Your task to perform on an android device: Go to settings Image 0: 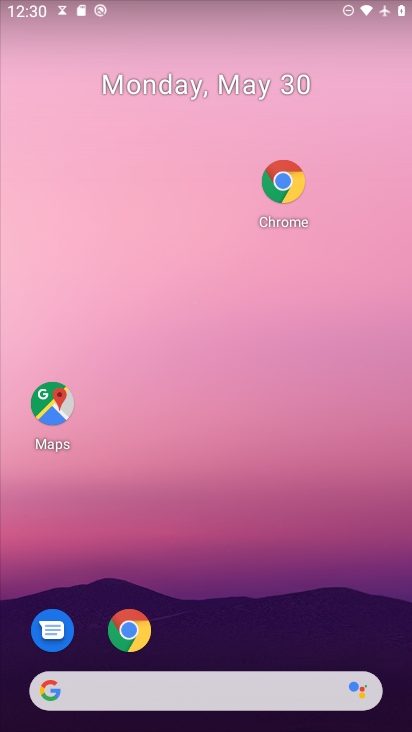
Step 0: drag from (268, 693) to (114, 217)
Your task to perform on an android device: Go to settings Image 1: 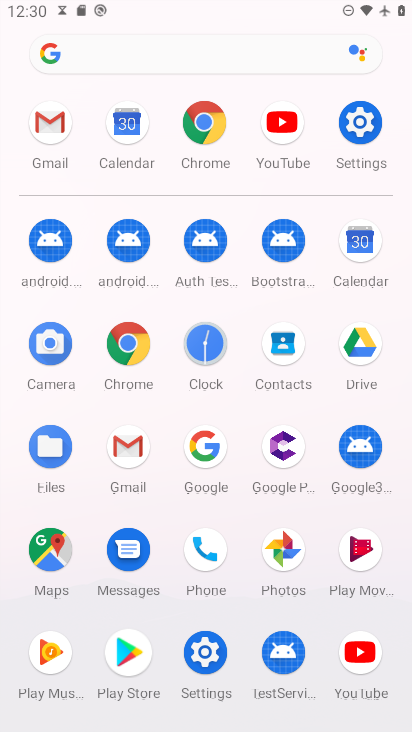
Step 1: click (356, 118)
Your task to perform on an android device: Go to settings Image 2: 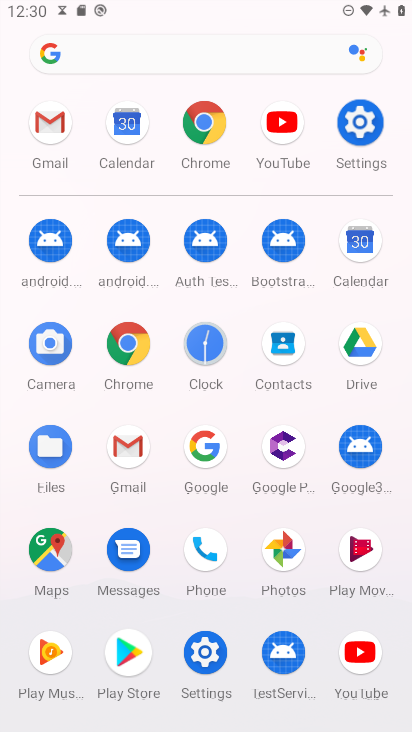
Step 2: click (356, 118)
Your task to perform on an android device: Go to settings Image 3: 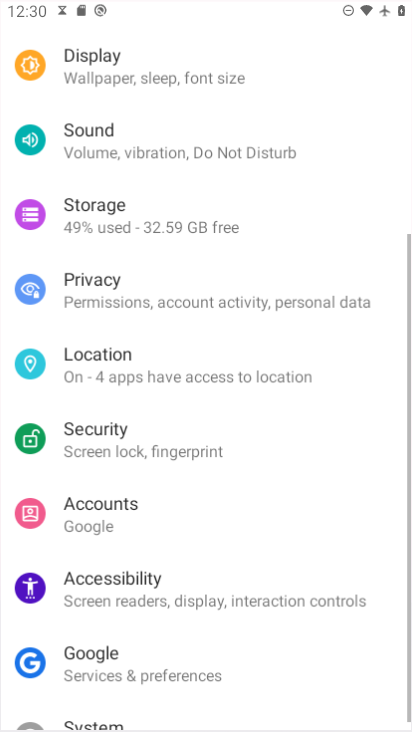
Step 3: click (357, 119)
Your task to perform on an android device: Go to settings Image 4: 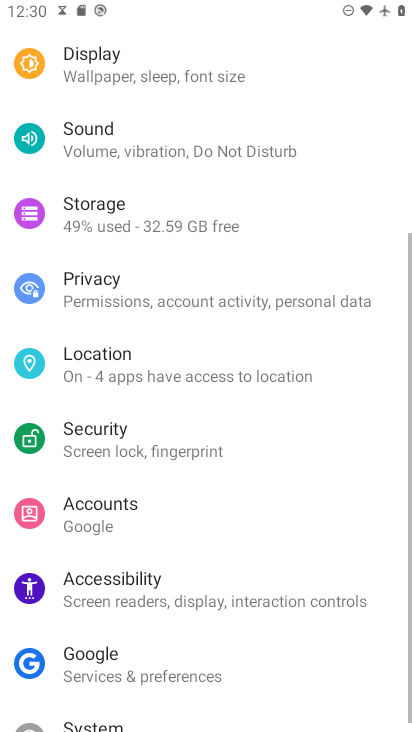
Step 4: click (357, 119)
Your task to perform on an android device: Go to settings Image 5: 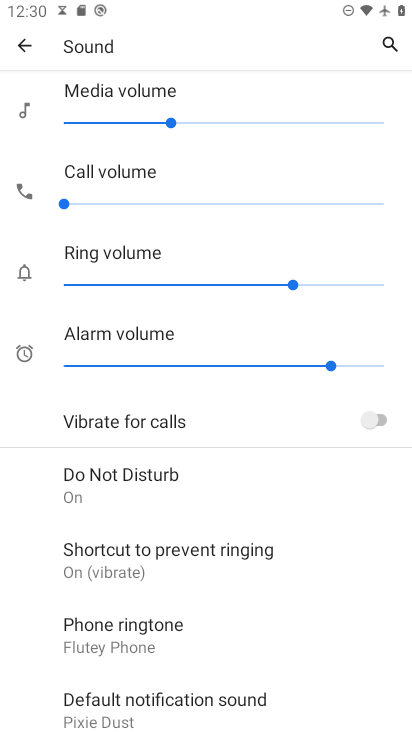
Step 5: click (20, 52)
Your task to perform on an android device: Go to settings Image 6: 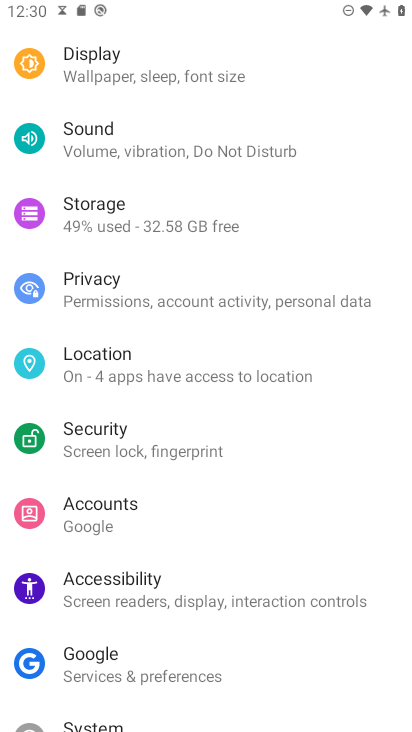
Step 6: drag from (108, 327) to (157, 440)
Your task to perform on an android device: Go to settings Image 7: 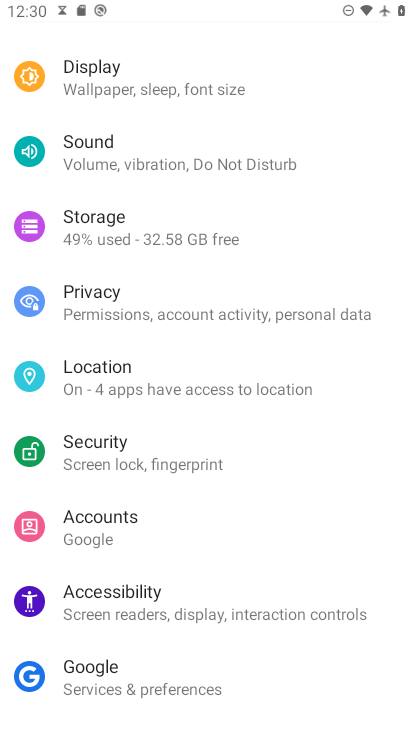
Step 7: drag from (147, 226) to (159, 398)
Your task to perform on an android device: Go to settings Image 8: 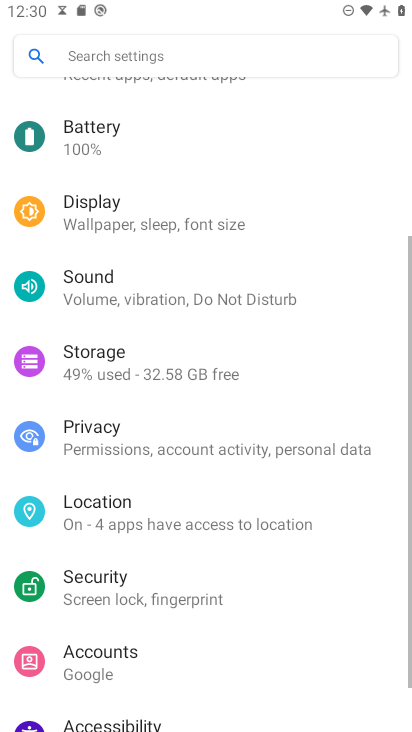
Step 8: click (180, 420)
Your task to perform on an android device: Go to settings Image 9: 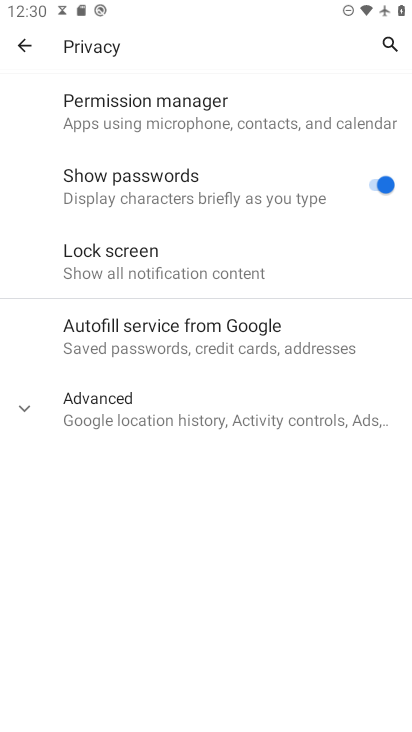
Step 9: click (33, 65)
Your task to perform on an android device: Go to settings Image 10: 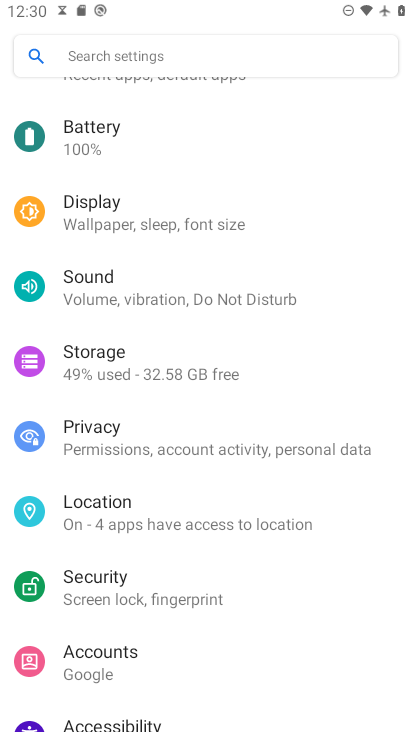
Step 10: task complete